Your task to perform on an android device: Open Reddit.com Image 0: 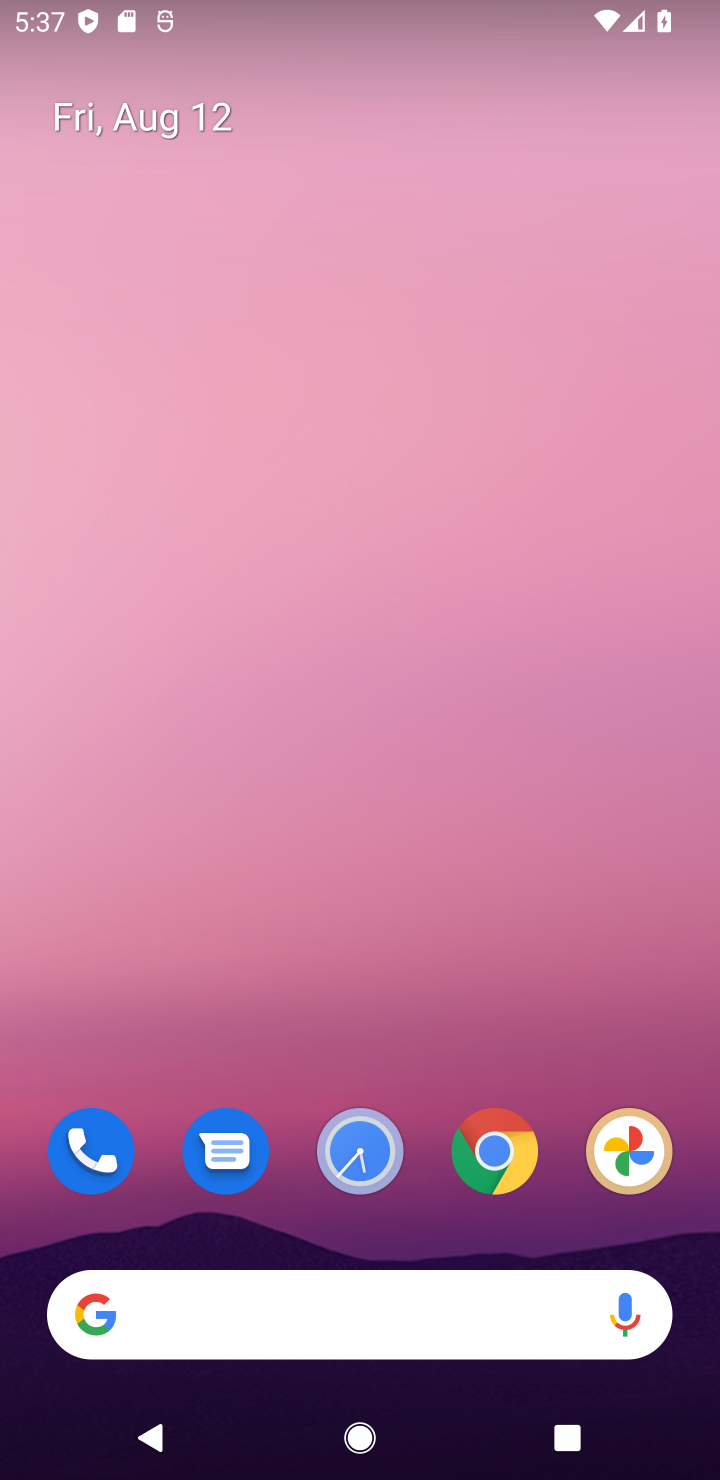
Step 0: press home button
Your task to perform on an android device: Open Reddit.com Image 1: 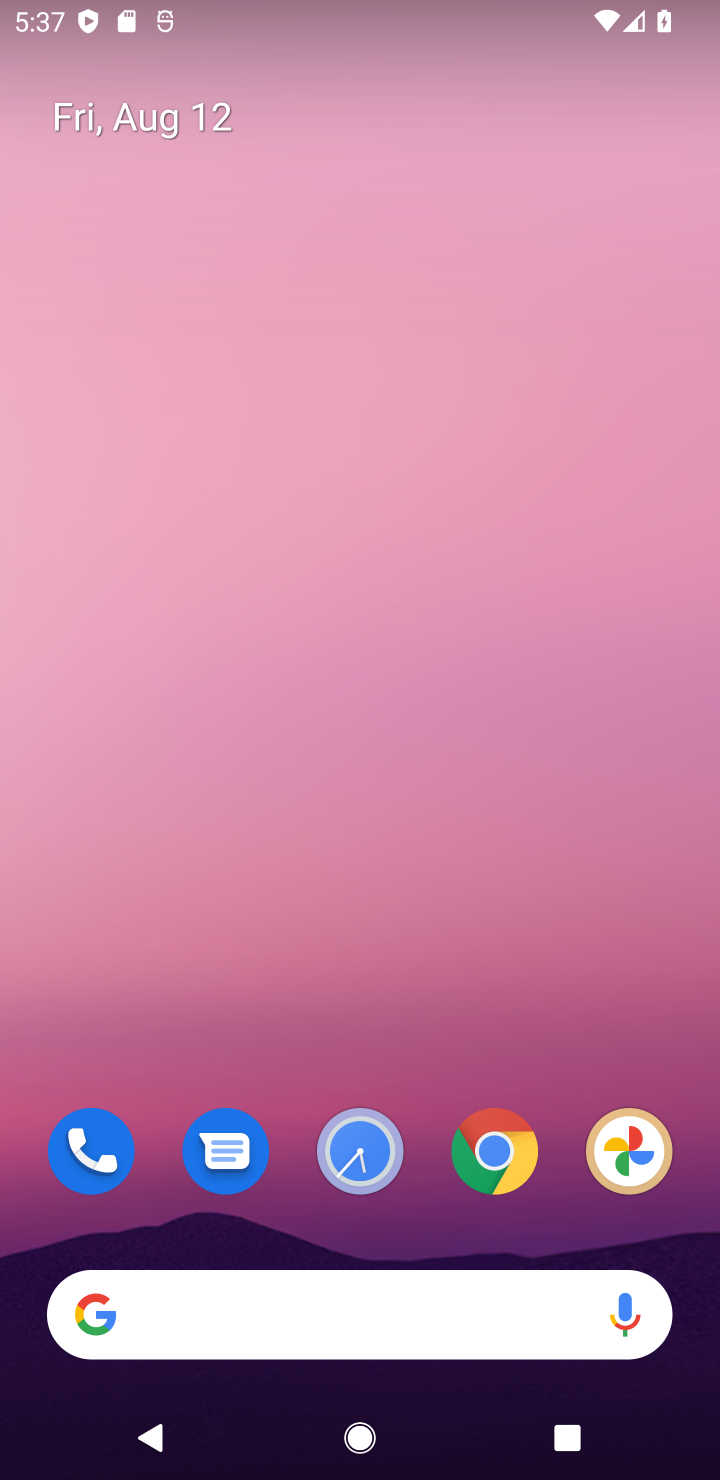
Step 1: drag from (526, 1028) to (566, 196)
Your task to perform on an android device: Open Reddit.com Image 2: 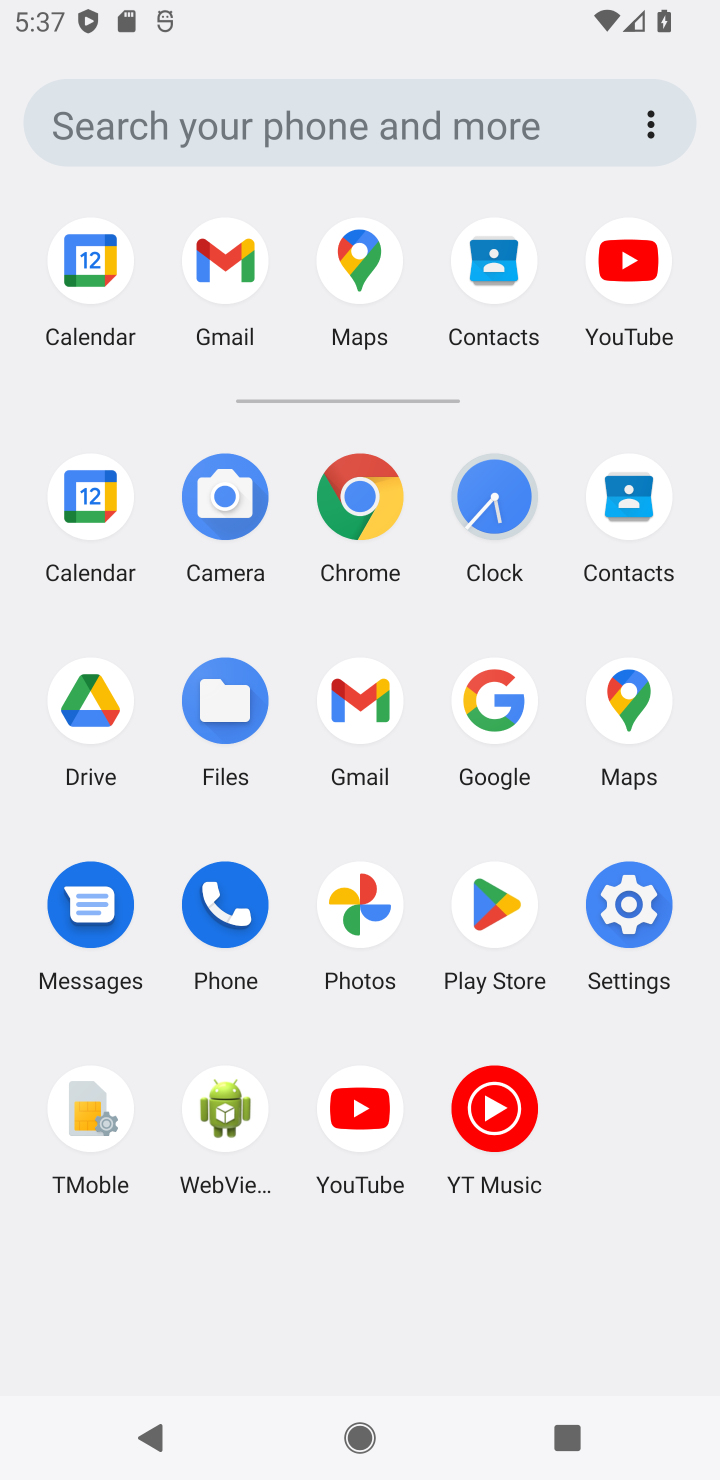
Step 2: click (367, 497)
Your task to perform on an android device: Open Reddit.com Image 3: 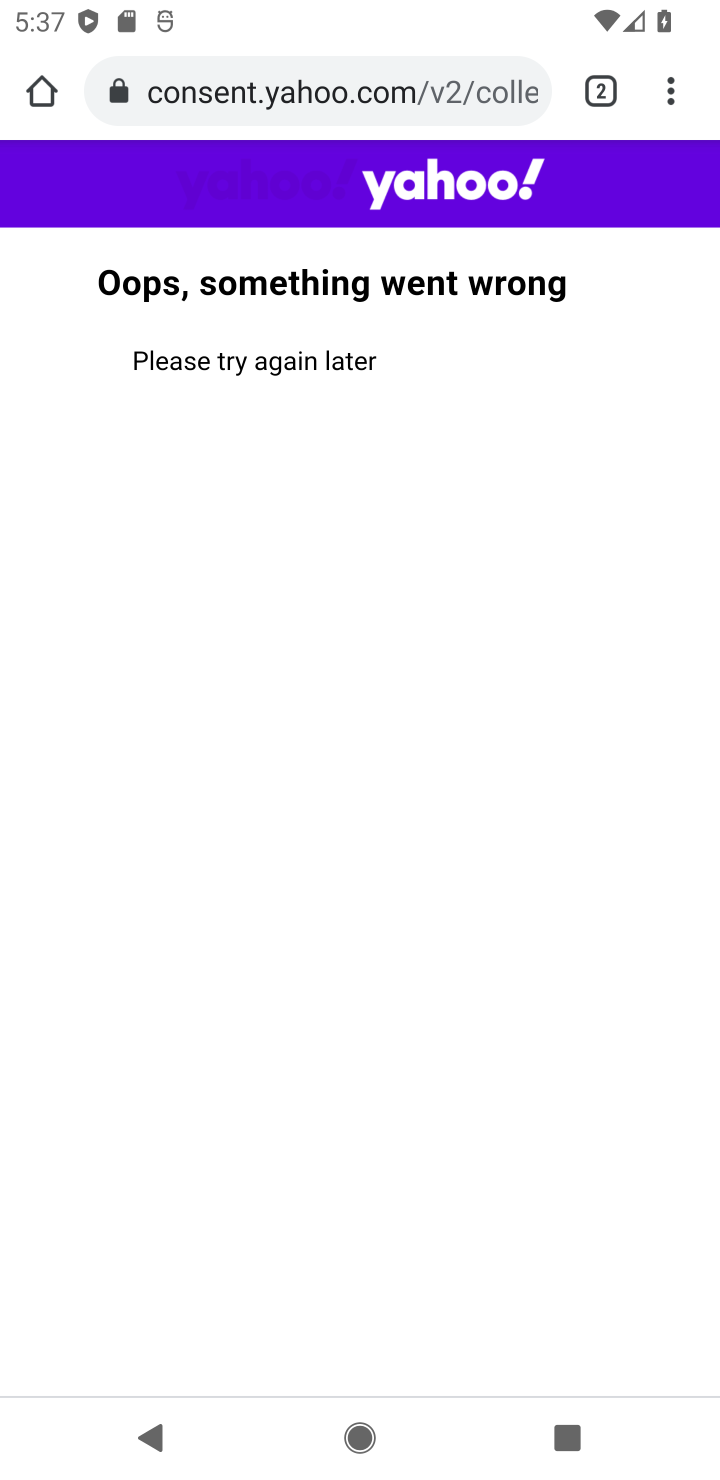
Step 3: click (370, 81)
Your task to perform on an android device: Open Reddit.com Image 4: 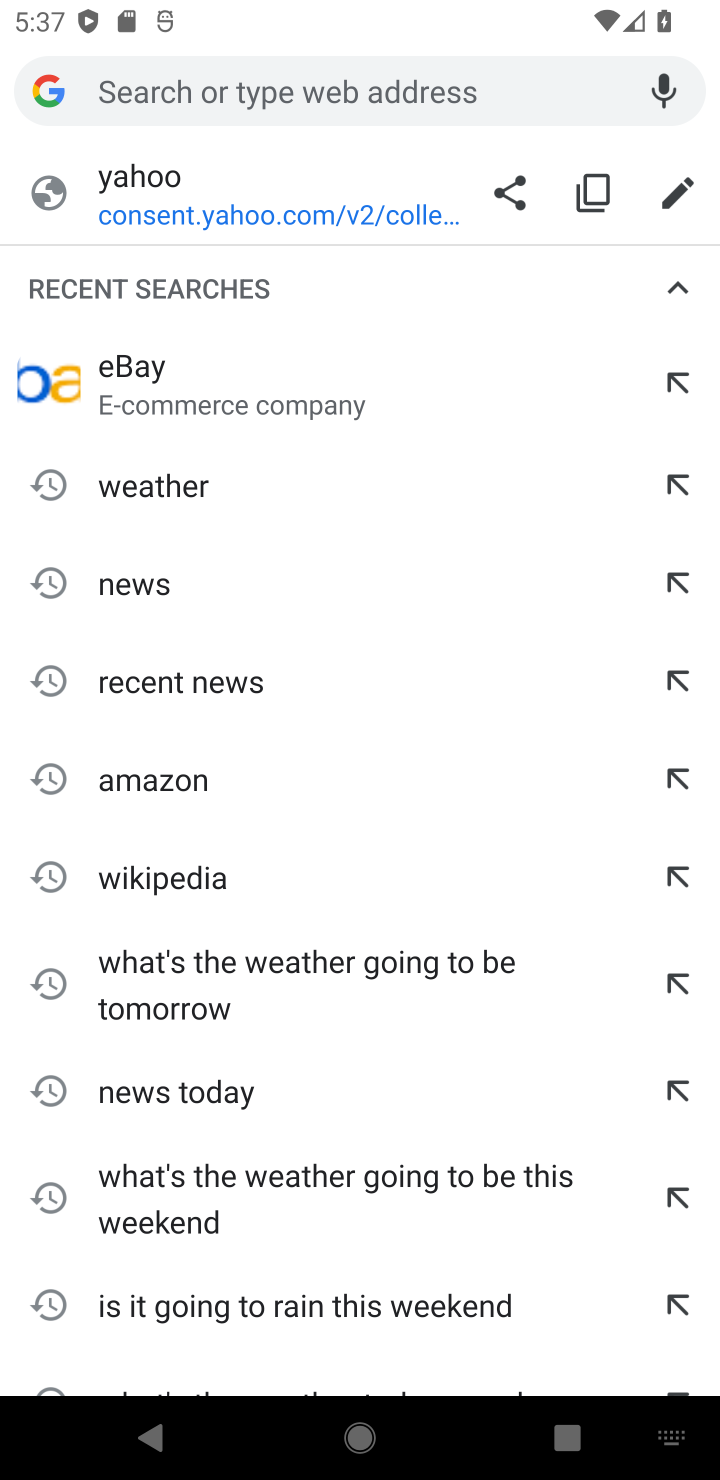
Step 4: type "reddit.com"
Your task to perform on an android device: Open Reddit.com Image 5: 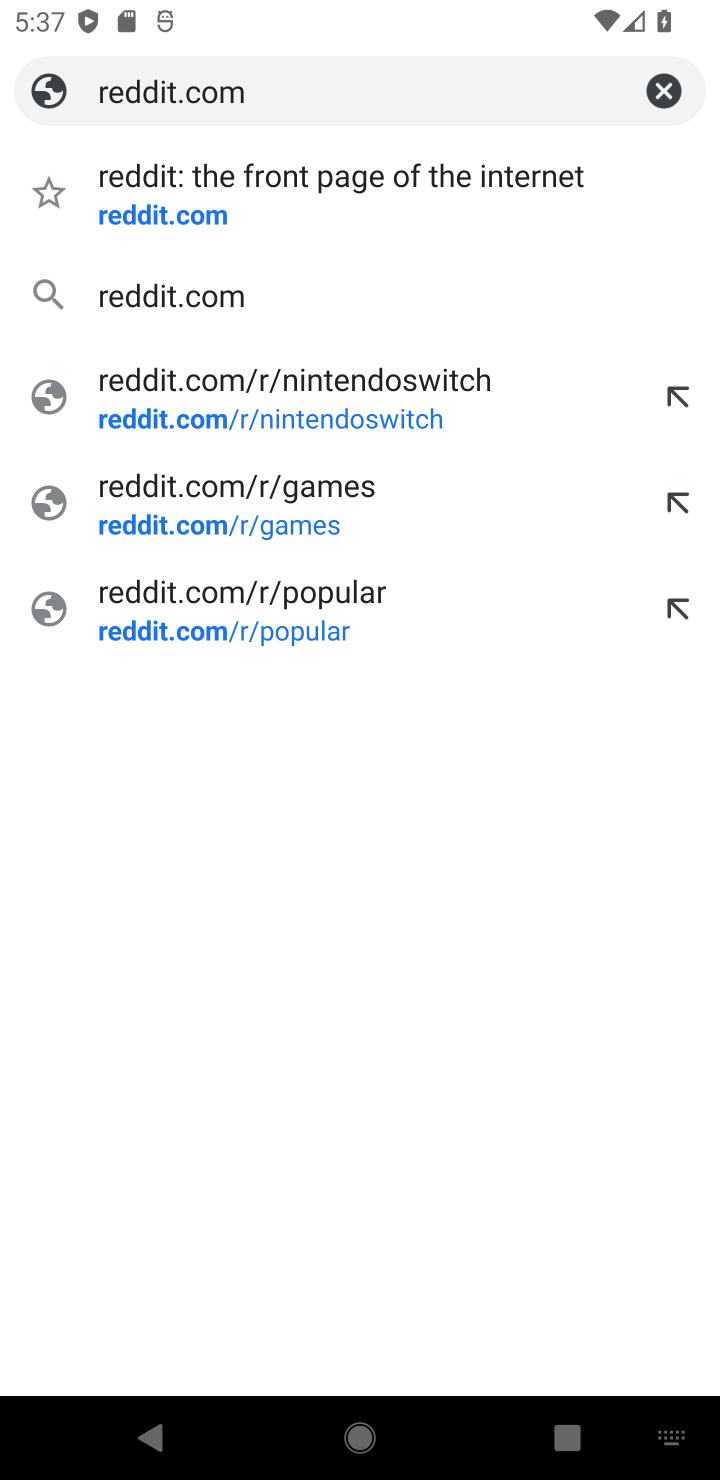
Step 5: click (189, 233)
Your task to perform on an android device: Open Reddit.com Image 6: 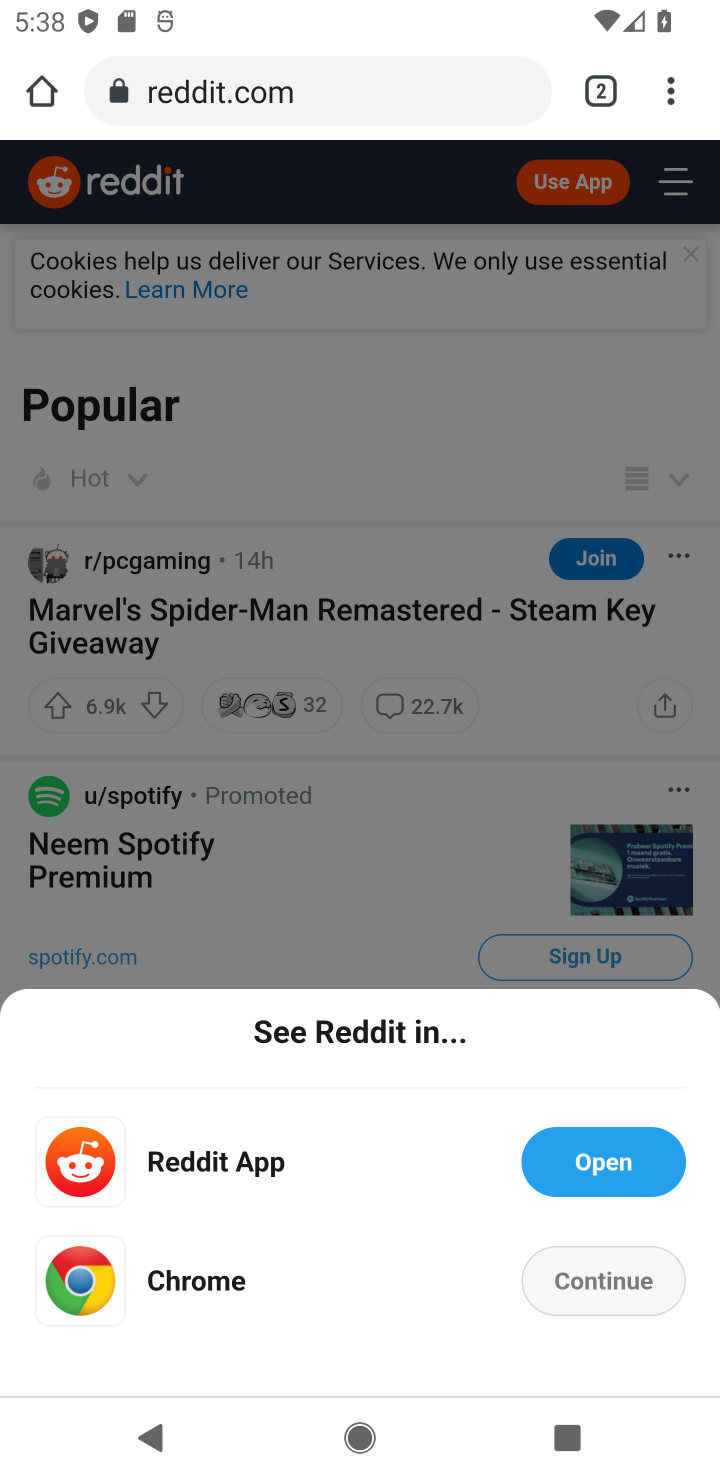
Step 6: task complete